Your task to perform on an android device: toggle airplane mode Image 0: 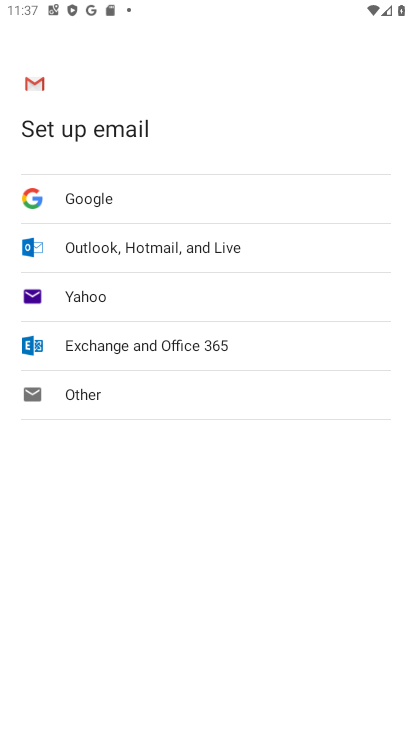
Step 0: press home button
Your task to perform on an android device: toggle airplane mode Image 1: 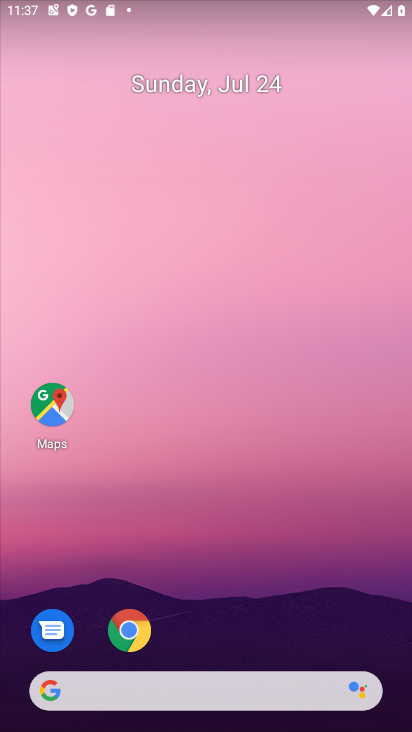
Step 1: drag from (362, 9) to (9, 722)
Your task to perform on an android device: toggle airplane mode Image 2: 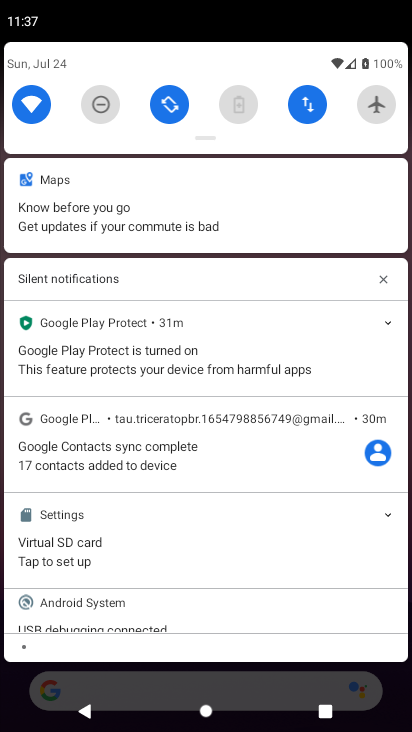
Step 2: click (373, 112)
Your task to perform on an android device: toggle airplane mode Image 3: 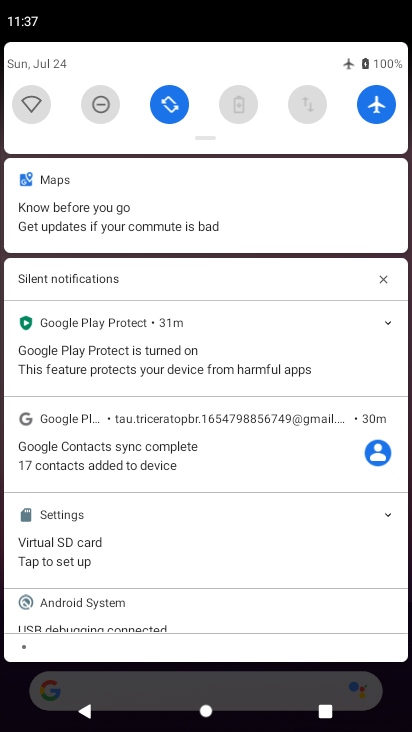
Step 3: task complete